Your task to perform on an android device: When is my next appointment? Image 0: 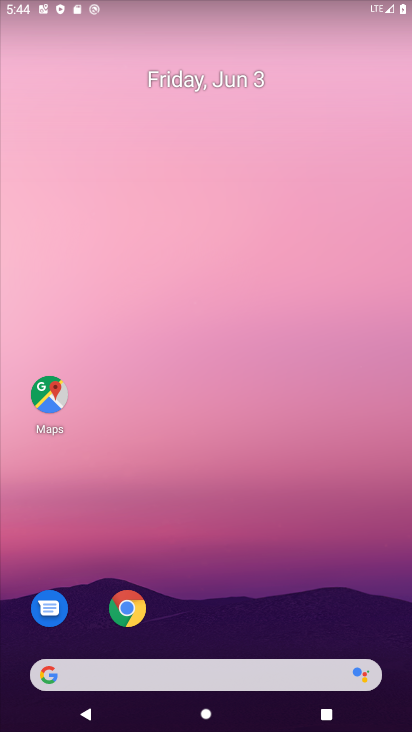
Step 0: drag from (249, 444) to (225, 65)
Your task to perform on an android device: When is my next appointment? Image 1: 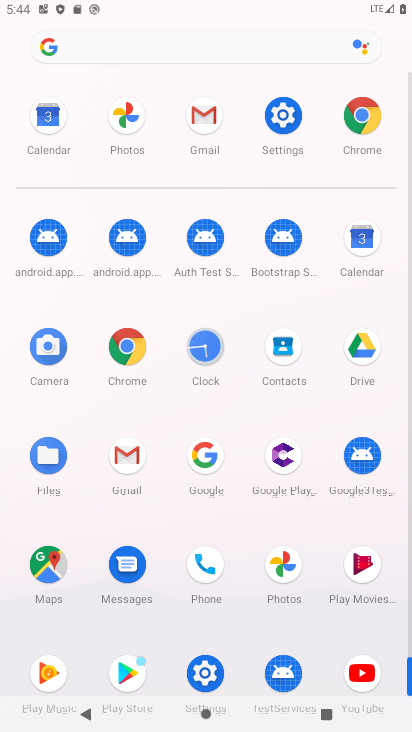
Step 1: click (364, 239)
Your task to perform on an android device: When is my next appointment? Image 2: 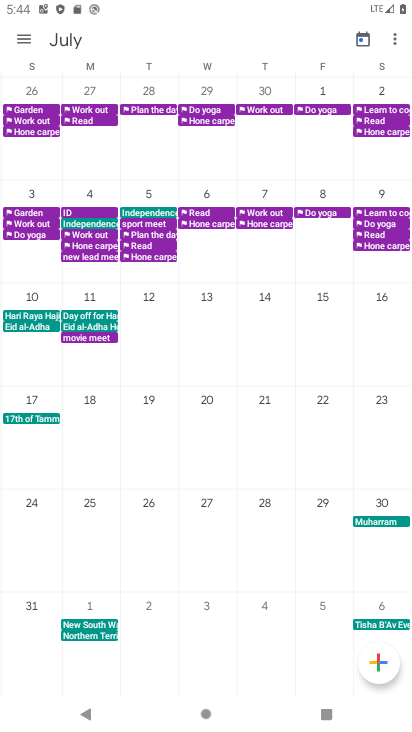
Step 2: click (25, 35)
Your task to perform on an android device: When is my next appointment? Image 3: 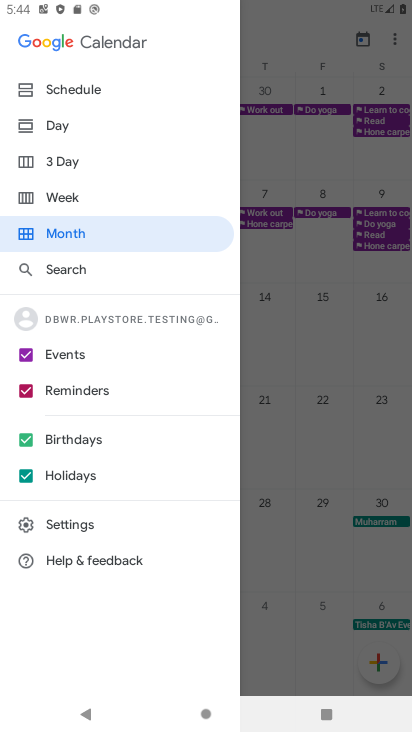
Step 3: click (101, 84)
Your task to perform on an android device: When is my next appointment? Image 4: 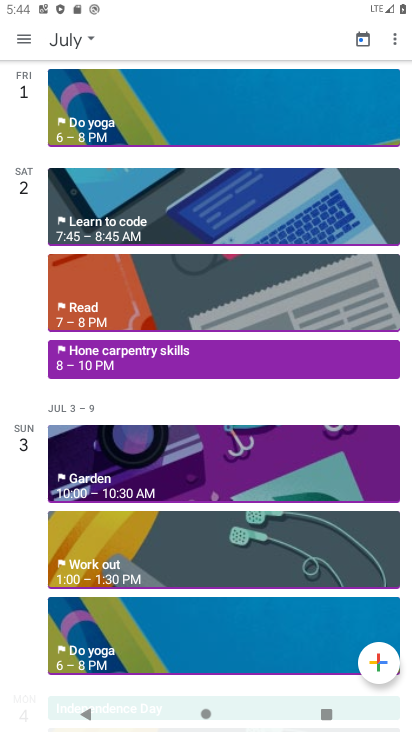
Step 4: task complete